Your task to perform on an android device: Open Google Image 0: 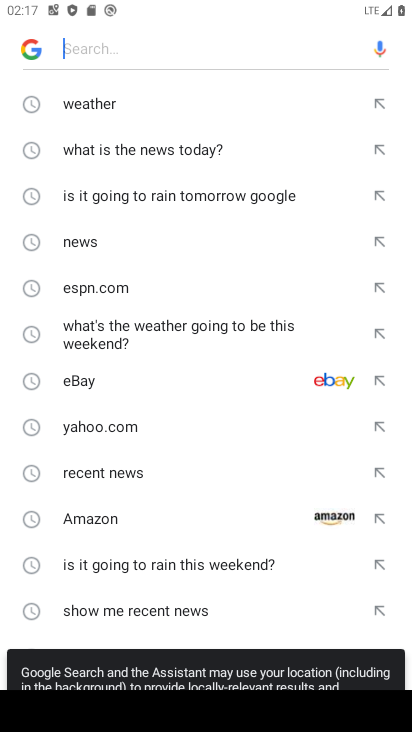
Step 0: press back button
Your task to perform on an android device: Open Google Image 1: 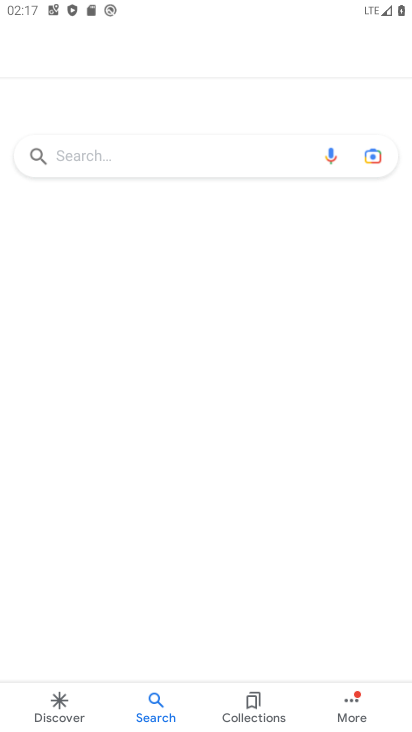
Step 1: press back button
Your task to perform on an android device: Open Google Image 2: 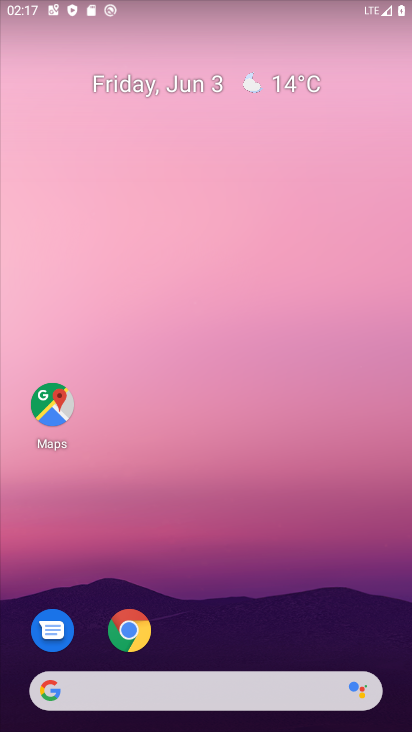
Step 2: drag from (389, 696) to (350, 47)
Your task to perform on an android device: Open Google Image 3: 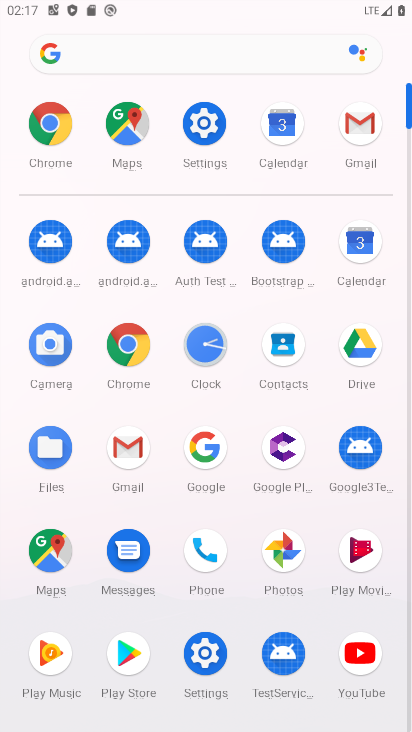
Step 3: click (208, 447)
Your task to perform on an android device: Open Google Image 4: 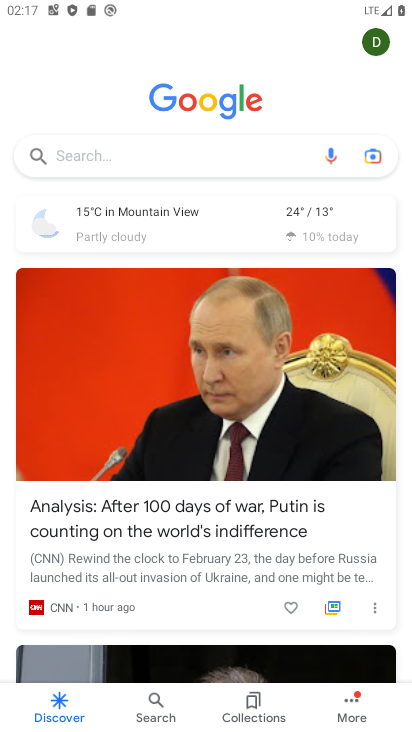
Step 4: task complete